Your task to perform on an android device: turn on bluetooth scan Image 0: 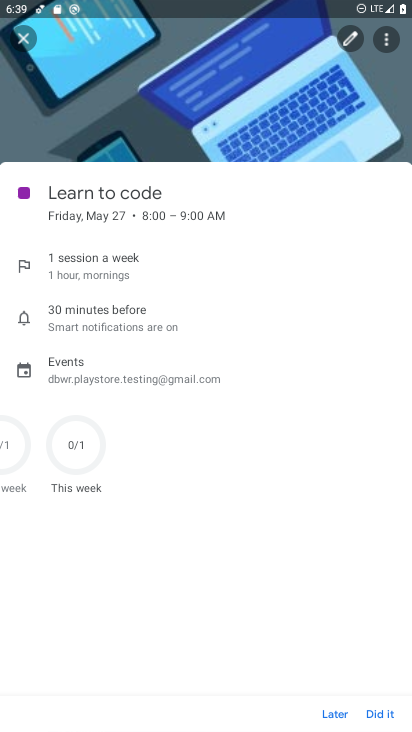
Step 0: press home button
Your task to perform on an android device: turn on bluetooth scan Image 1: 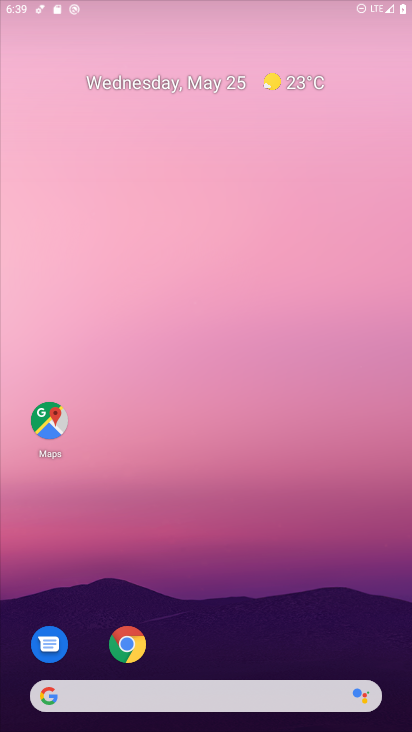
Step 1: drag from (394, 658) to (343, 105)
Your task to perform on an android device: turn on bluetooth scan Image 2: 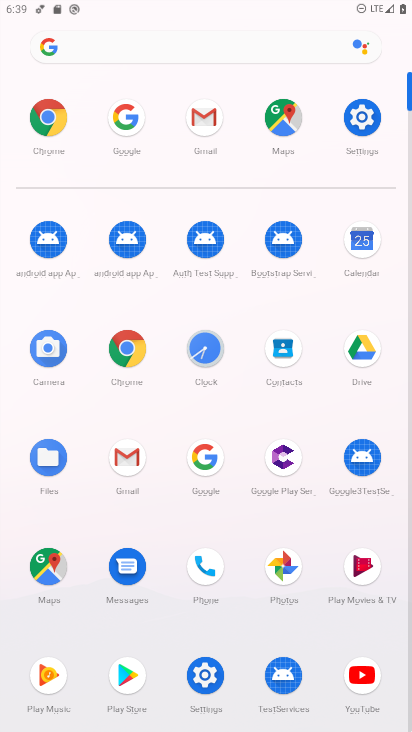
Step 2: click (204, 682)
Your task to perform on an android device: turn on bluetooth scan Image 3: 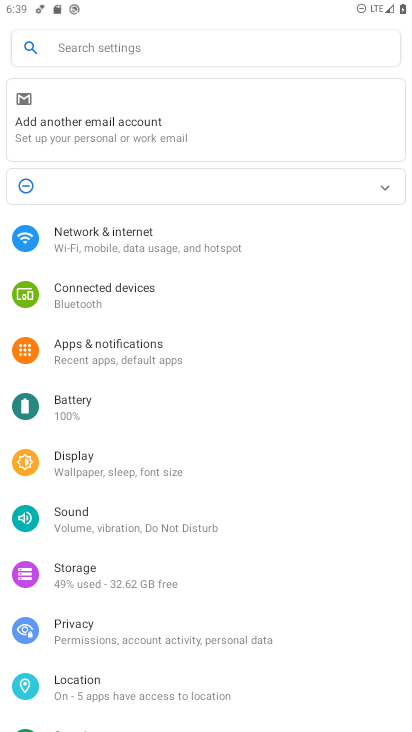
Step 3: click (130, 691)
Your task to perform on an android device: turn on bluetooth scan Image 4: 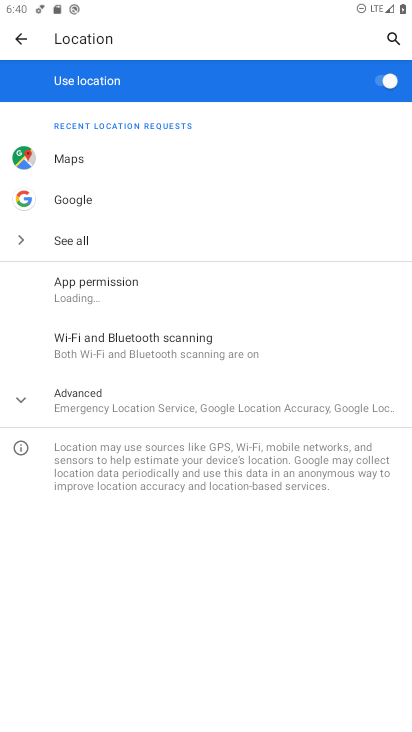
Step 4: click (122, 338)
Your task to perform on an android device: turn on bluetooth scan Image 5: 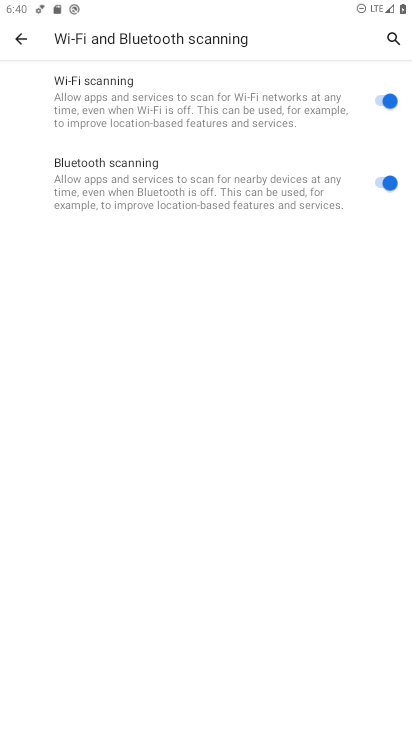
Step 5: task complete